Your task to perform on an android device: toggle sleep mode Image 0: 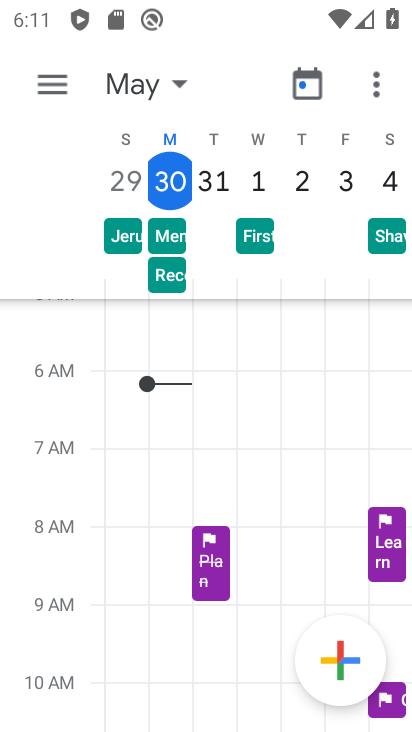
Step 0: press home button
Your task to perform on an android device: toggle sleep mode Image 1: 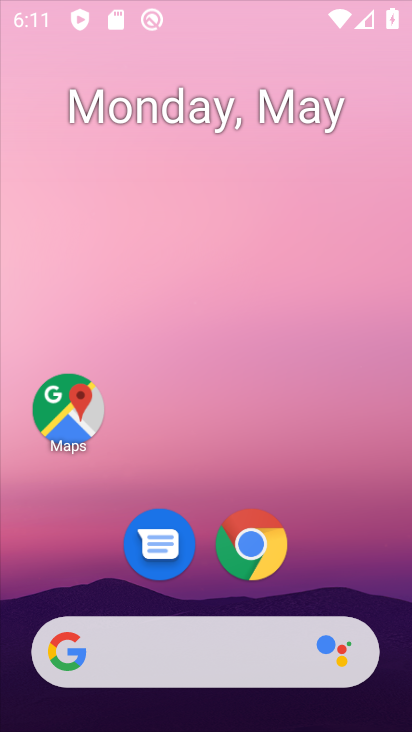
Step 1: drag from (319, 471) to (215, 31)
Your task to perform on an android device: toggle sleep mode Image 2: 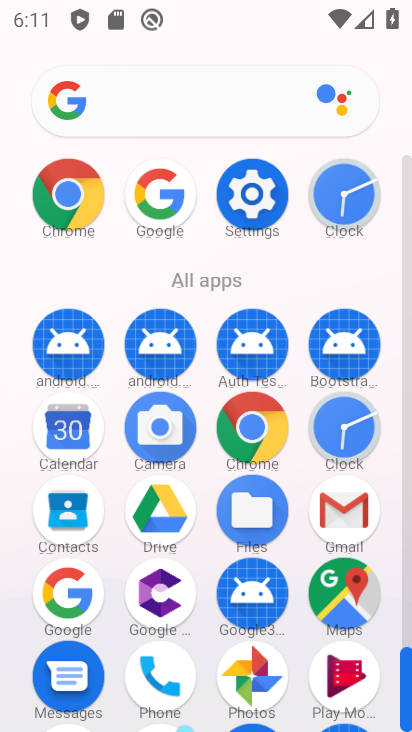
Step 2: click (258, 208)
Your task to perform on an android device: toggle sleep mode Image 3: 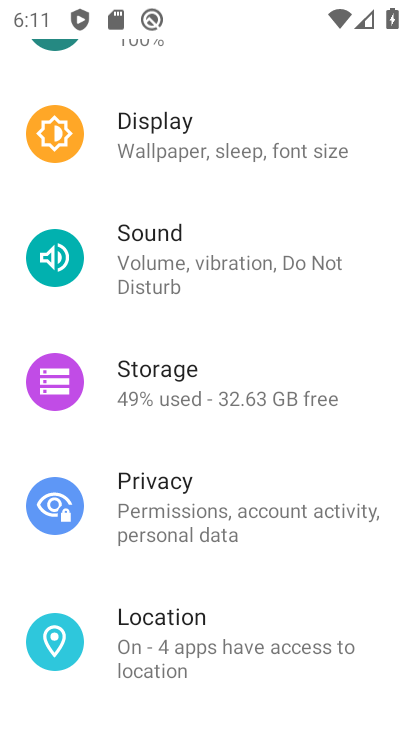
Step 3: click (216, 150)
Your task to perform on an android device: toggle sleep mode Image 4: 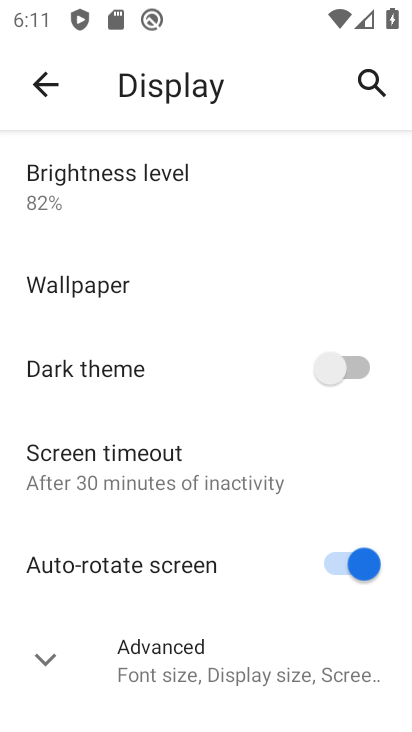
Step 4: task complete